Your task to perform on an android device: View the shopping cart on bestbuy. Image 0: 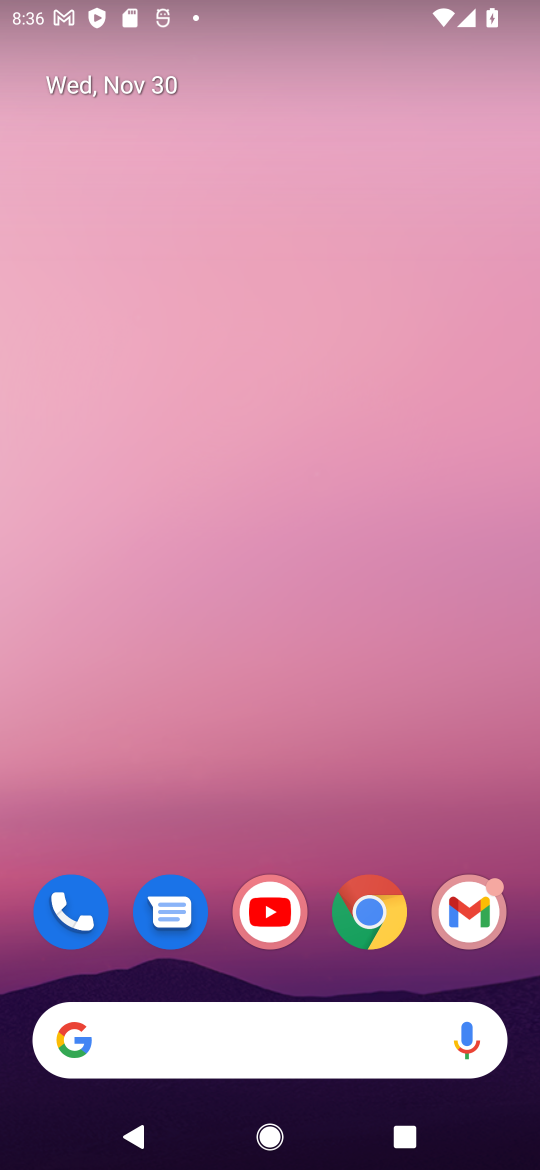
Step 0: click (264, 1040)
Your task to perform on an android device: View the shopping cart on bestbuy. Image 1: 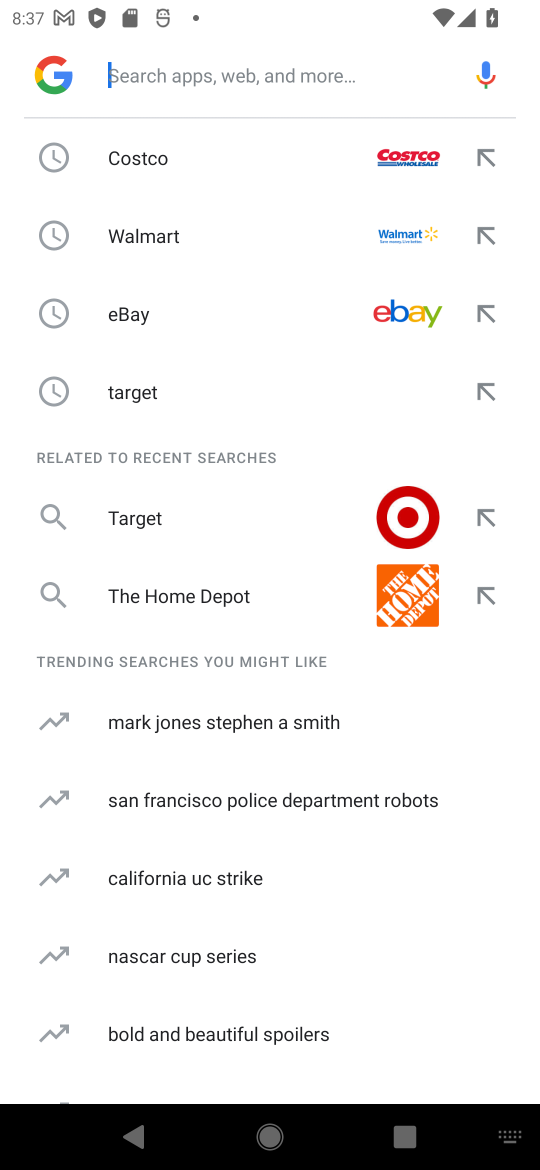
Step 1: type "bestbuy"
Your task to perform on an android device: View the shopping cart on bestbuy. Image 2: 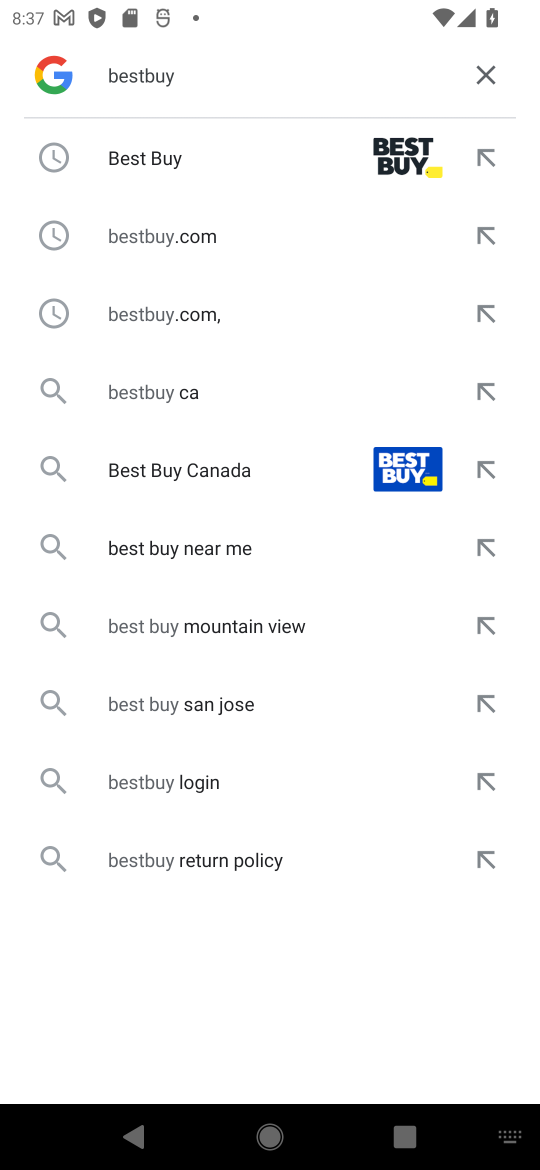
Step 2: click (301, 150)
Your task to perform on an android device: View the shopping cart on bestbuy. Image 3: 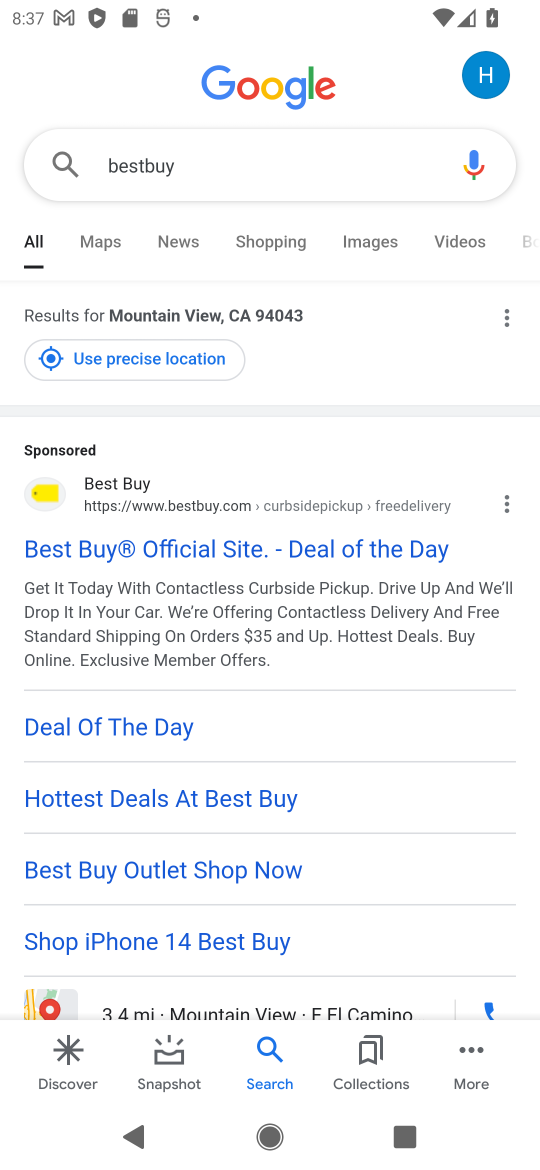
Step 3: click (149, 547)
Your task to perform on an android device: View the shopping cart on bestbuy. Image 4: 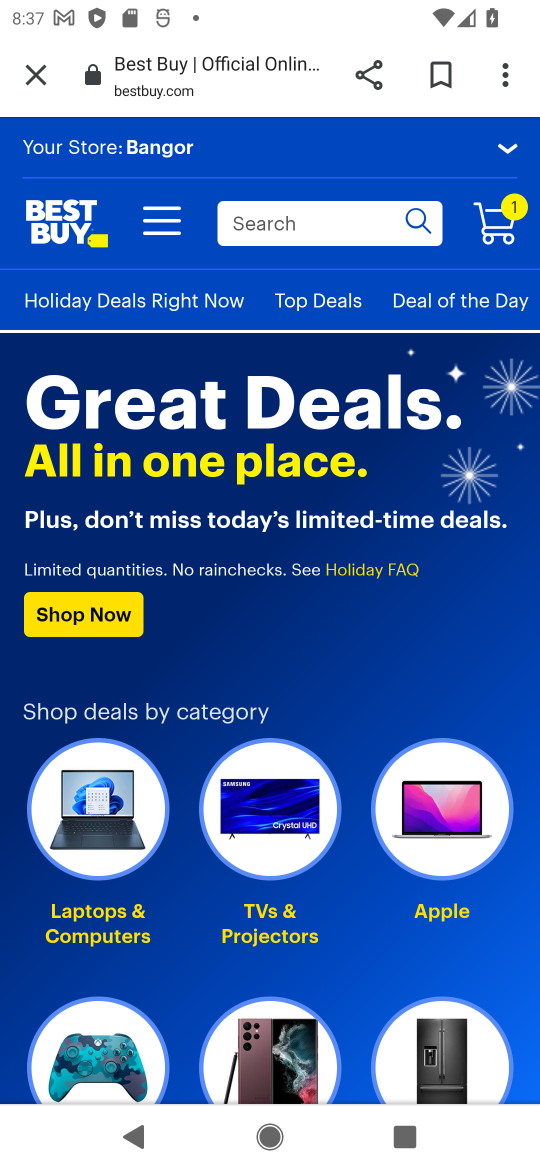
Step 4: click (494, 236)
Your task to perform on an android device: View the shopping cart on bestbuy. Image 5: 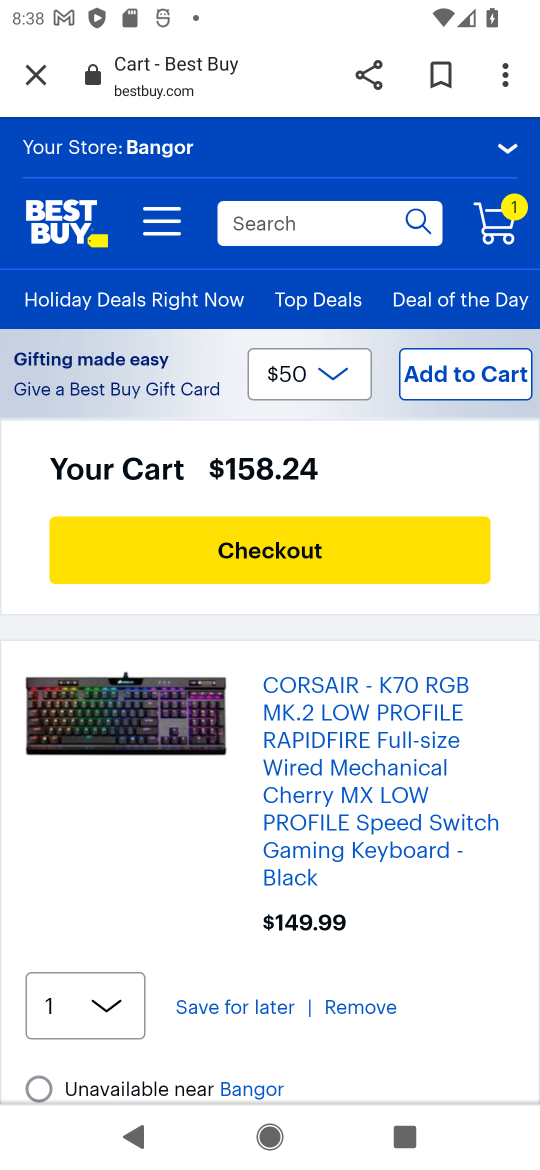
Step 5: task complete